Your task to perform on an android device: turn off improve location accuracy Image 0: 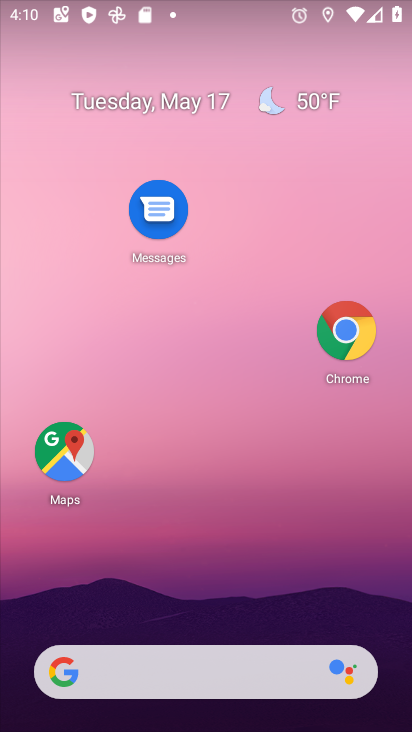
Step 0: drag from (281, 579) to (198, 156)
Your task to perform on an android device: turn off improve location accuracy Image 1: 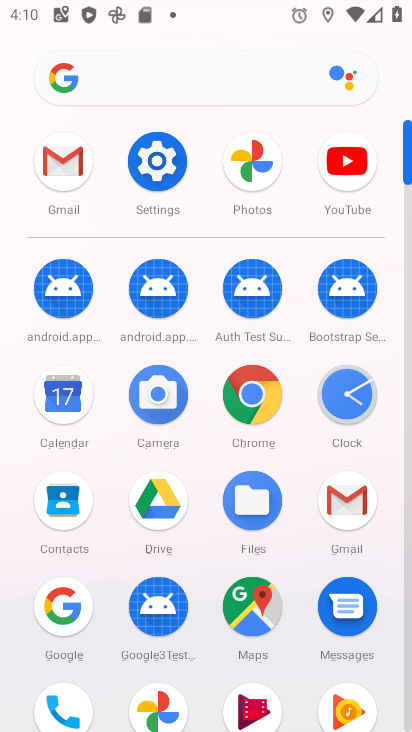
Step 1: click (139, 152)
Your task to perform on an android device: turn off improve location accuracy Image 2: 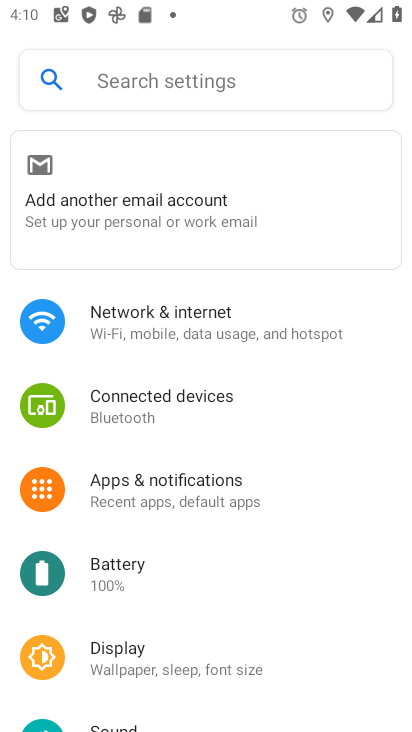
Step 2: drag from (190, 633) to (189, 444)
Your task to perform on an android device: turn off improve location accuracy Image 3: 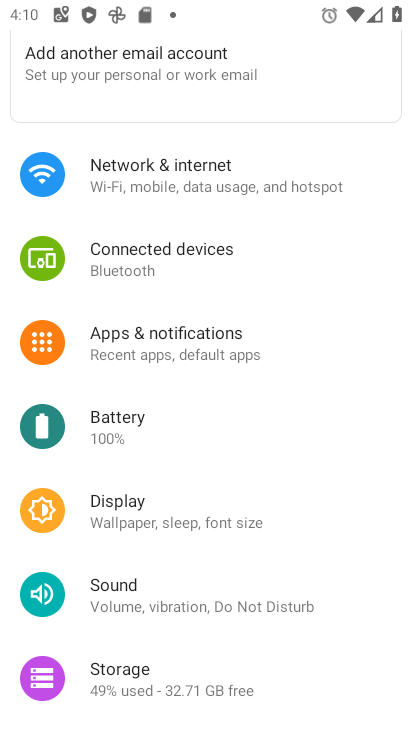
Step 3: drag from (189, 453) to (138, 255)
Your task to perform on an android device: turn off improve location accuracy Image 4: 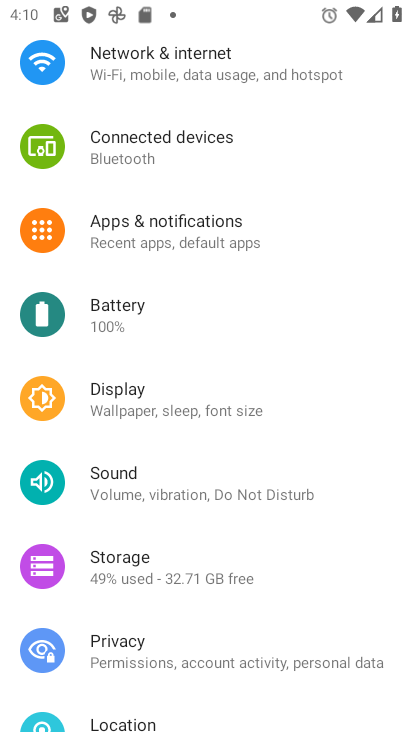
Step 4: drag from (187, 619) to (178, 524)
Your task to perform on an android device: turn off improve location accuracy Image 5: 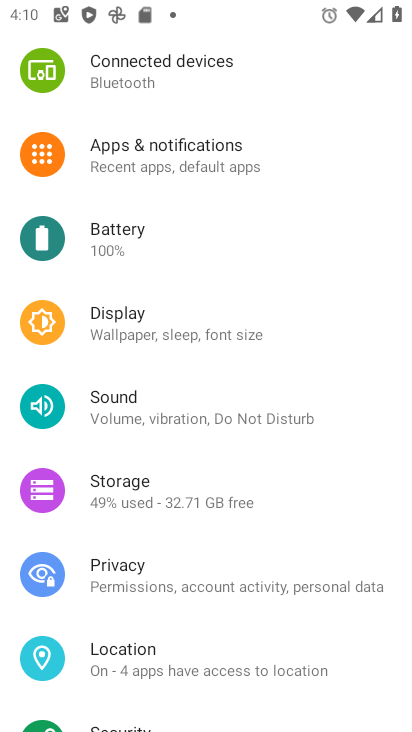
Step 5: click (181, 647)
Your task to perform on an android device: turn off improve location accuracy Image 6: 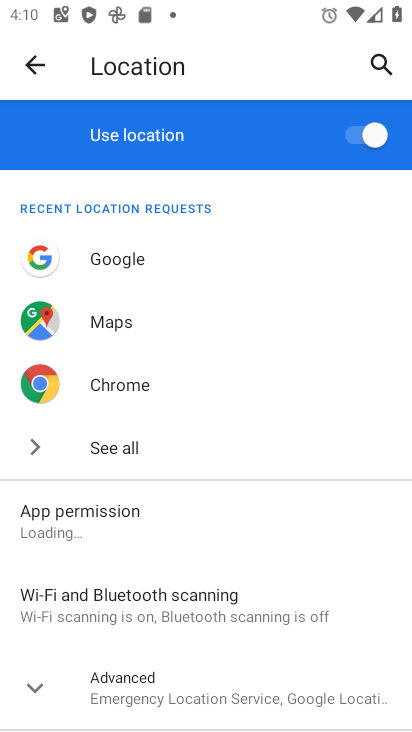
Step 6: click (334, 148)
Your task to perform on an android device: turn off improve location accuracy Image 7: 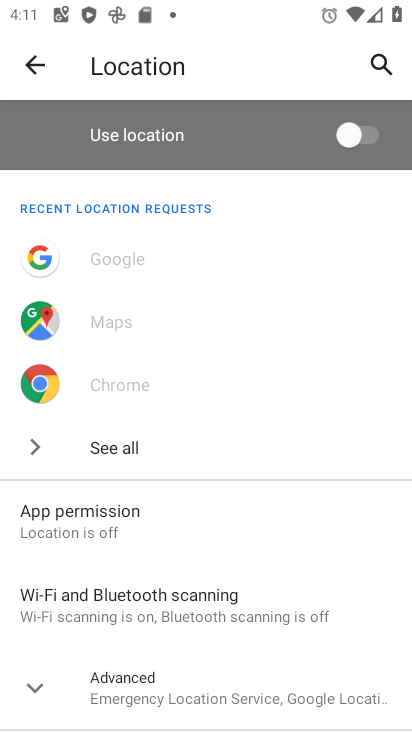
Step 7: drag from (183, 582) to (175, 476)
Your task to perform on an android device: turn off improve location accuracy Image 8: 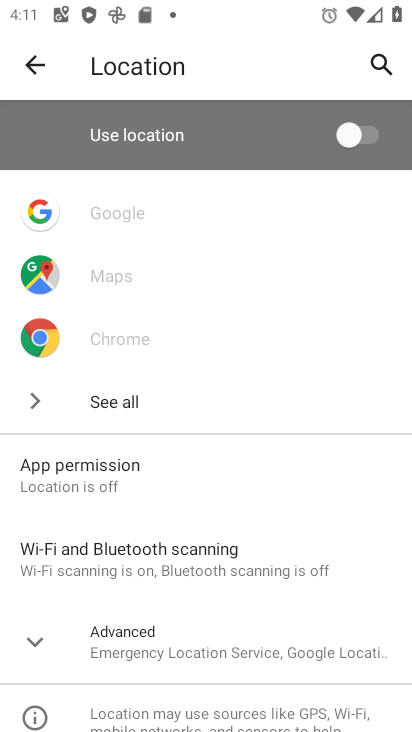
Step 8: drag from (258, 620) to (231, 245)
Your task to perform on an android device: turn off improve location accuracy Image 9: 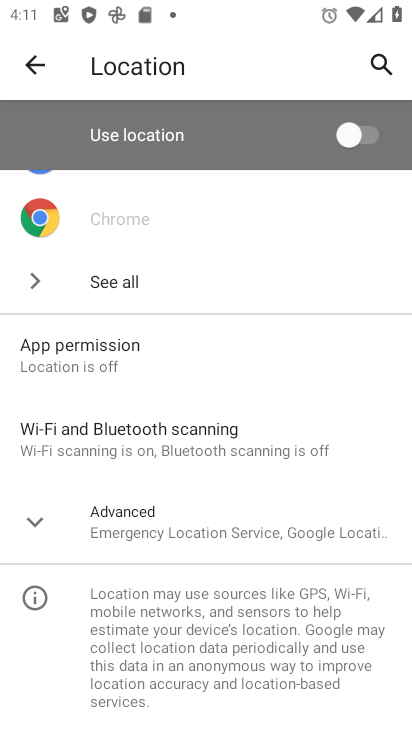
Step 9: click (205, 502)
Your task to perform on an android device: turn off improve location accuracy Image 10: 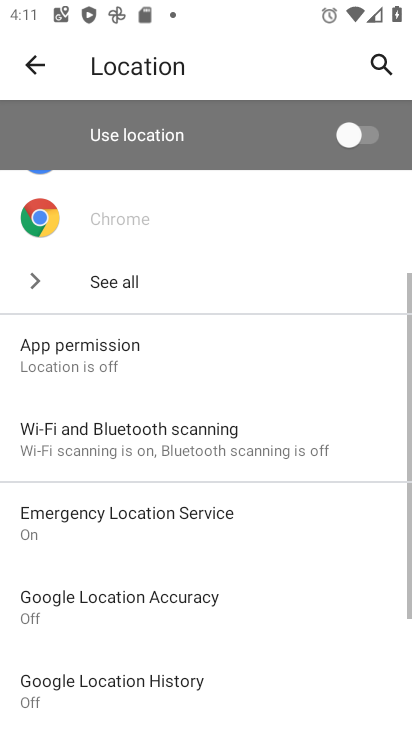
Step 10: drag from (125, 634) to (133, 504)
Your task to perform on an android device: turn off improve location accuracy Image 11: 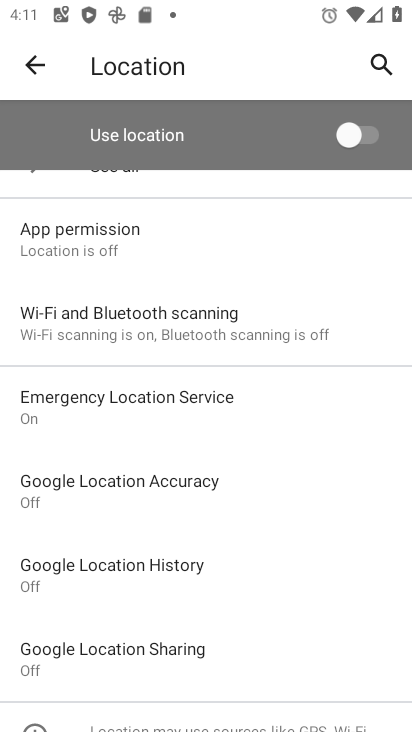
Step 11: click (113, 469)
Your task to perform on an android device: turn off improve location accuracy Image 12: 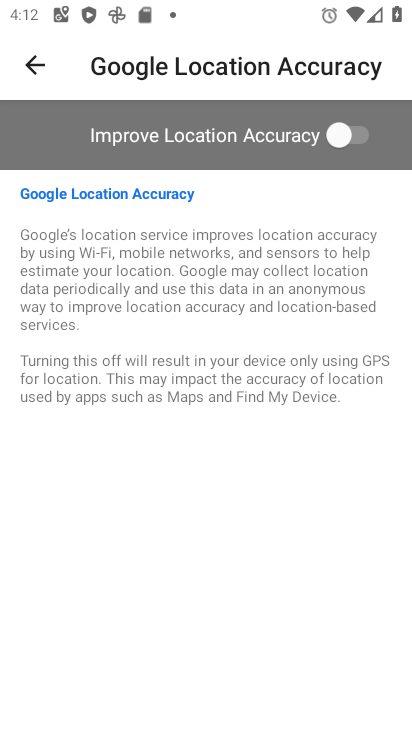
Step 12: task complete